Your task to perform on an android device: Go to settings Image 0: 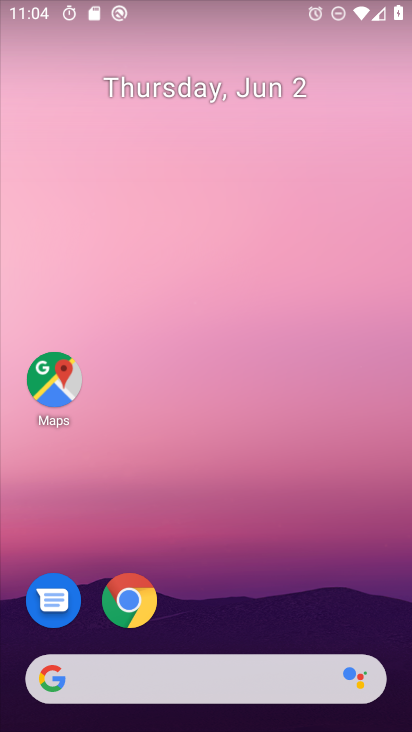
Step 0: drag from (251, 596) to (300, 82)
Your task to perform on an android device: Go to settings Image 1: 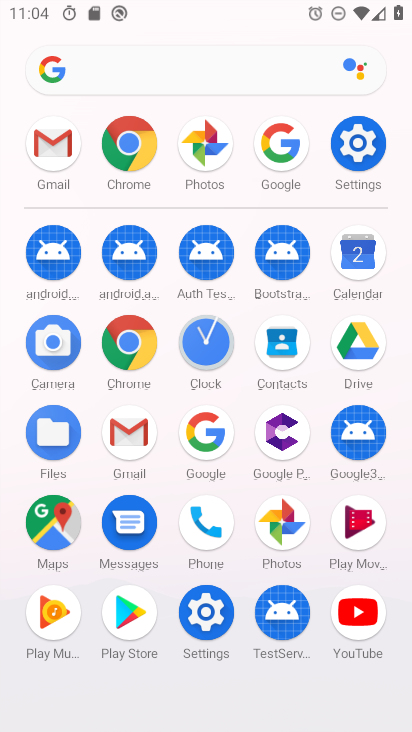
Step 1: click (358, 144)
Your task to perform on an android device: Go to settings Image 2: 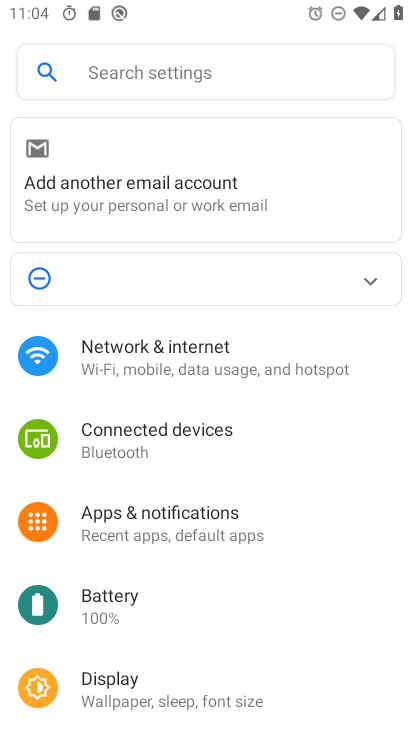
Step 2: task complete